Your task to perform on an android device: toggle data saver in the chrome app Image 0: 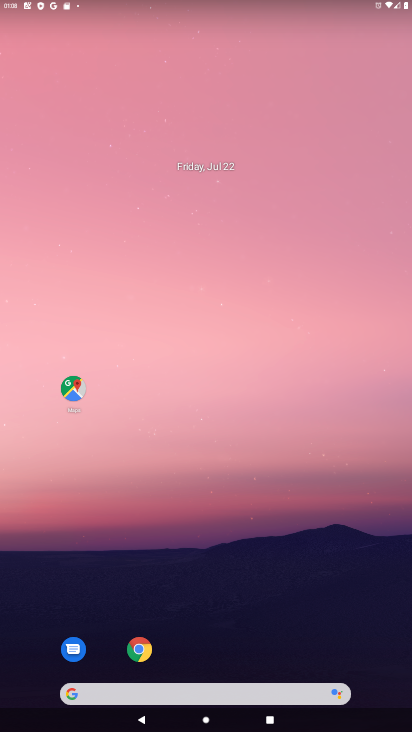
Step 0: drag from (273, 635) to (258, 58)
Your task to perform on an android device: toggle data saver in the chrome app Image 1: 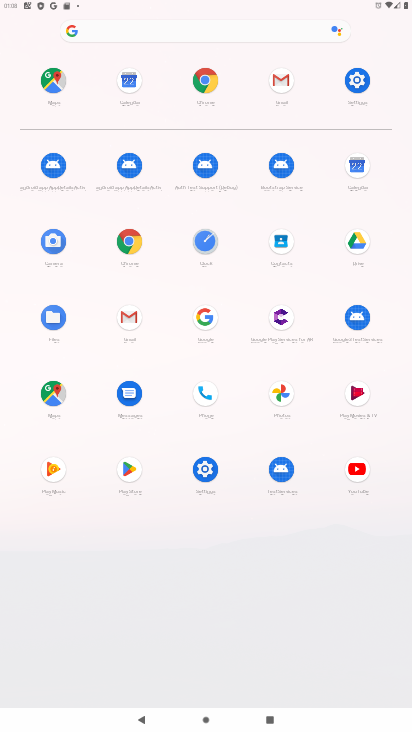
Step 1: click (134, 238)
Your task to perform on an android device: toggle data saver in the chrome app Image 2: 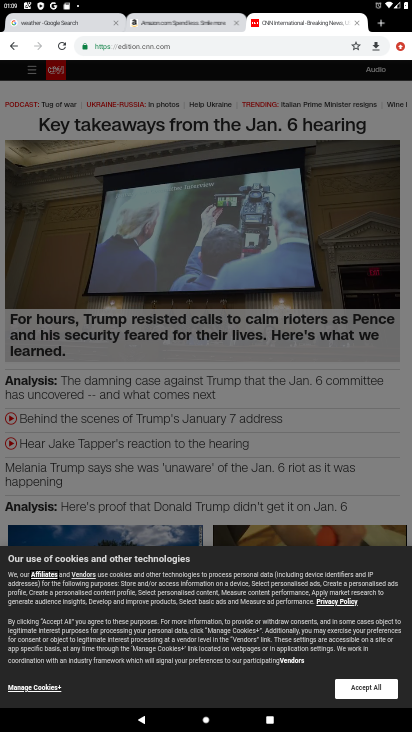
Step 2: drag from (405, 37) to (314, 316)
Your task to perform on an android device: toggle data saver in the chrome app Image 3: 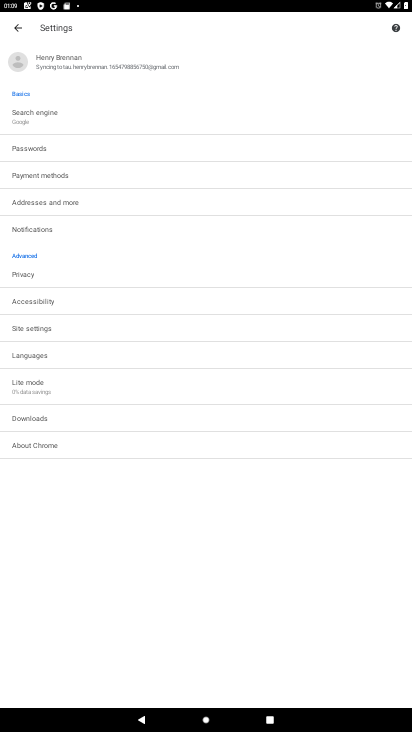
Step 3: click (15, 394)
Your task to perform on an android device: toggle data saver in the chrome app Image 4: 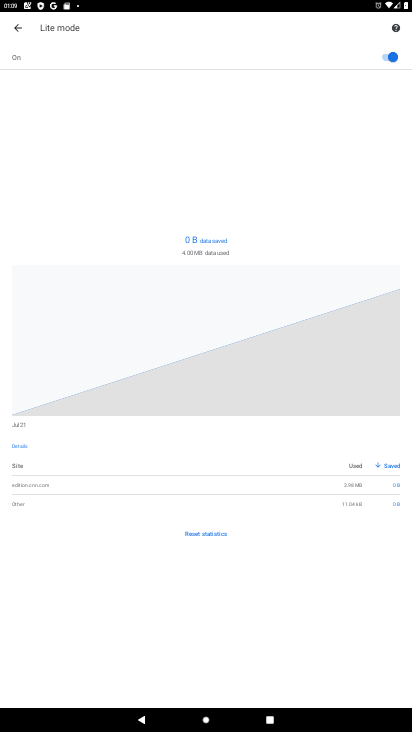
Step 4: click (387, 46)
Your task to perform on an android device: toggle data saver in the chrome app Image 5: 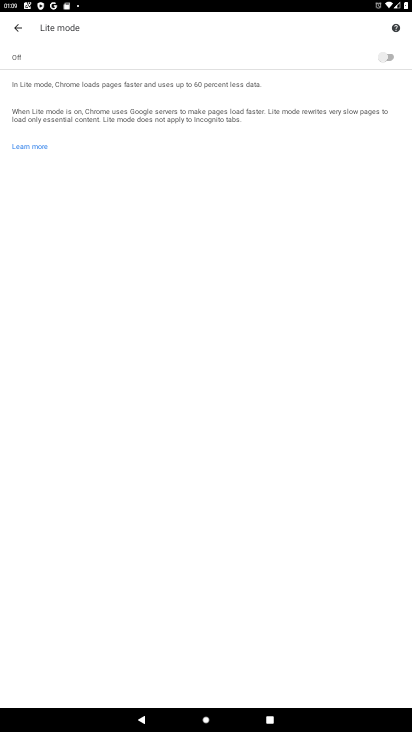
Step 5: task complete